Your task to perform on an android device: create a new album in the google photos Image 0: 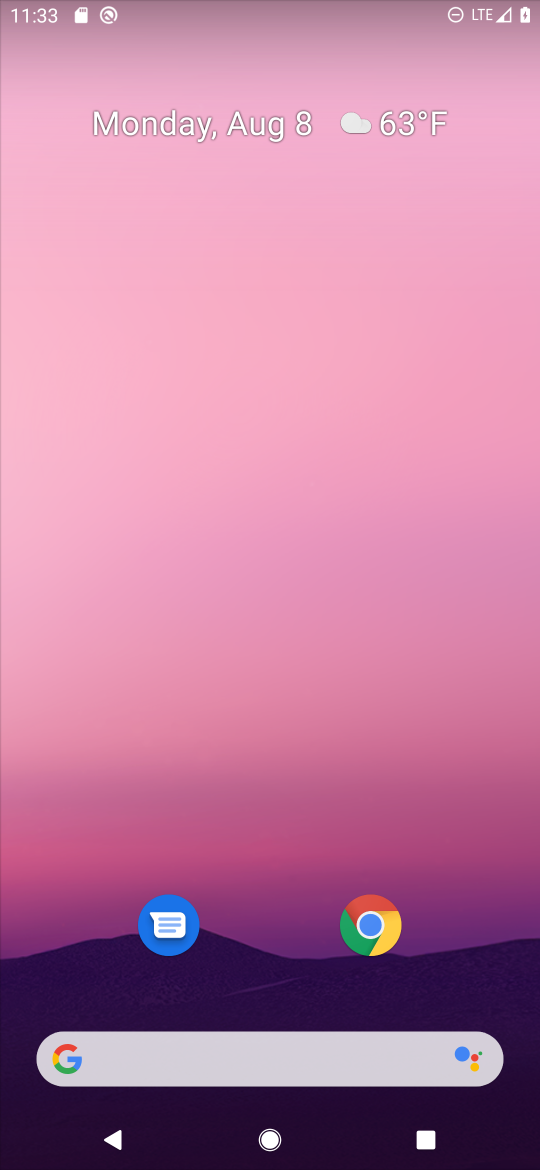
Step 0: drag from (291, 995) to (275, 13)
Your task to perform on an android device: create a new album in the google photos Image 1: 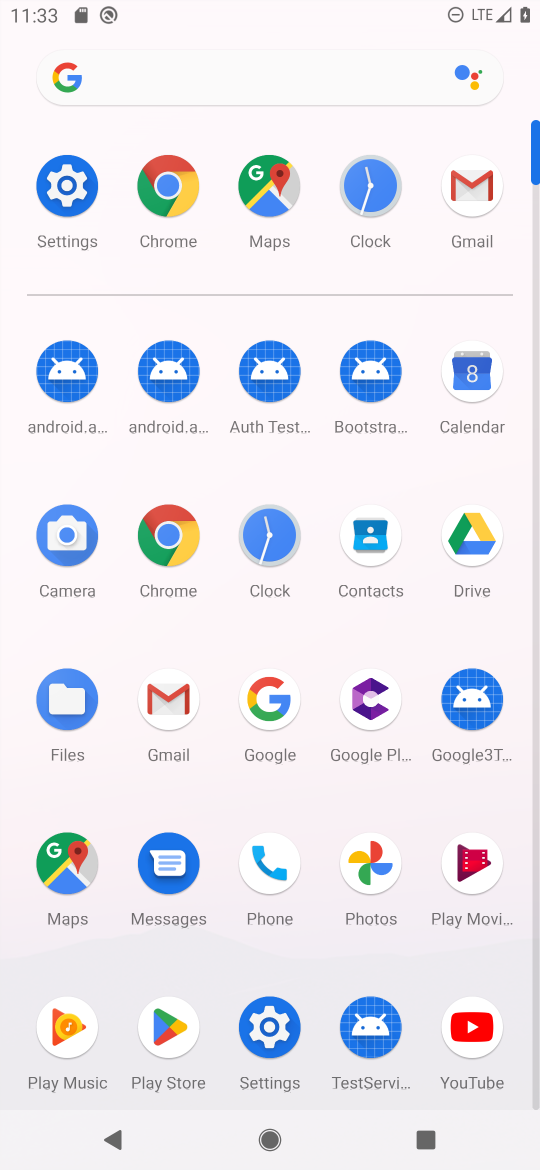
Step 1: click (367, 864)
Your task to perform on an android device: create a new album in the google photos Image 2: 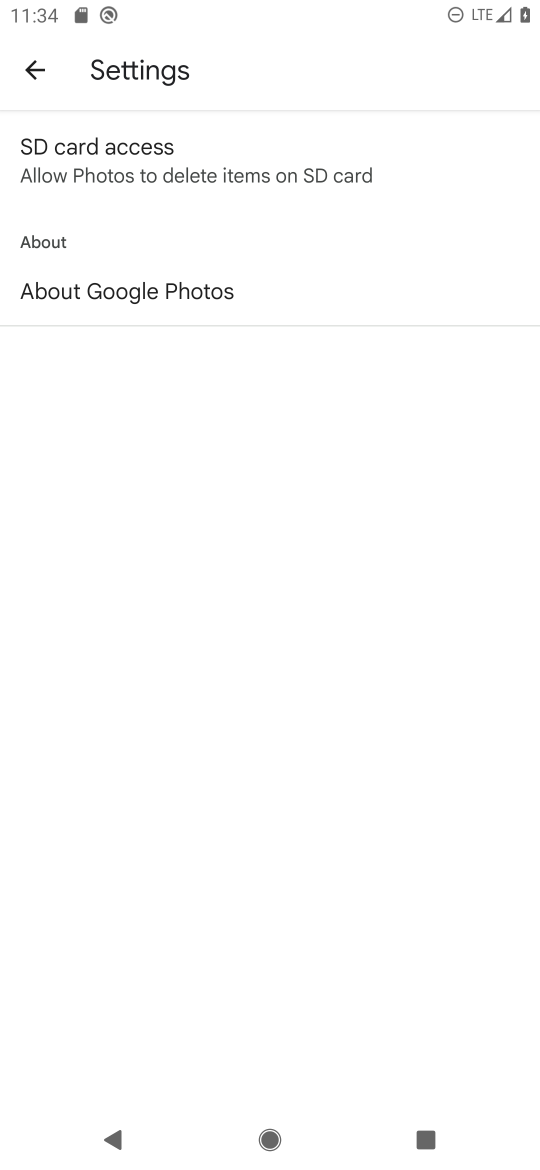
Step 2: click (34, 61)
Your task to perform on an android device: create a new album in the google photos Image 3: 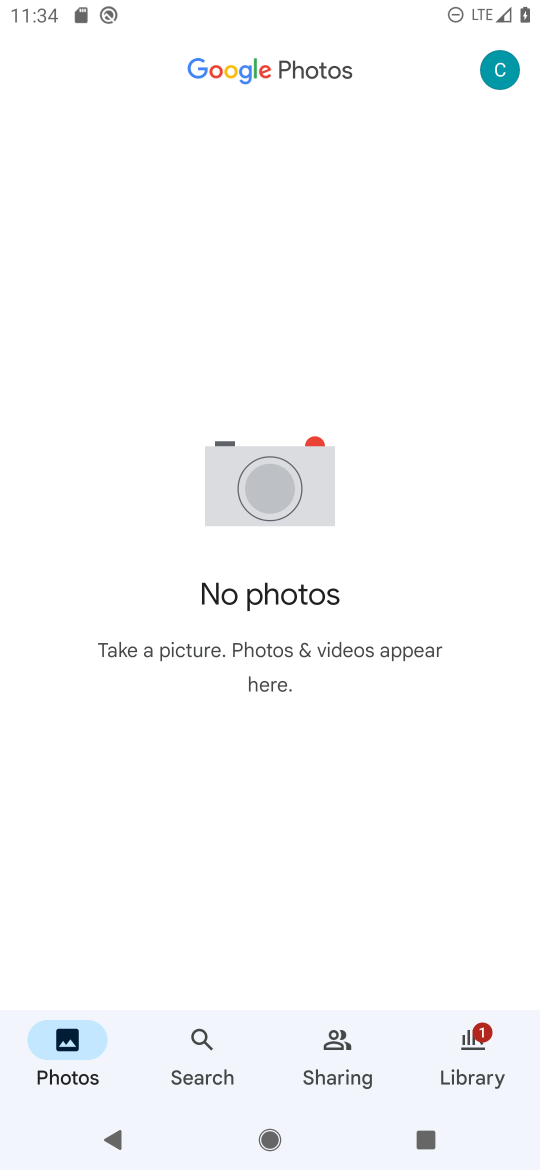
Step 3: click (490, 1057)
Your task to perform on an android device: create a new album in the google photos Image 4: 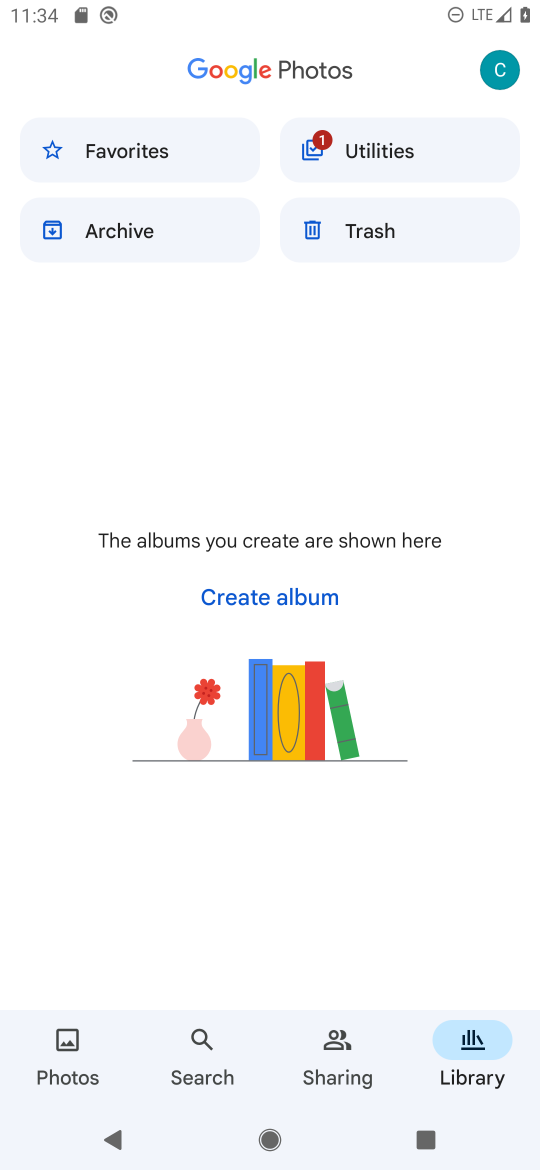
Step 4: click (319, 593)
Your task to perform on an android device: create a new album in the google photos Image 5: 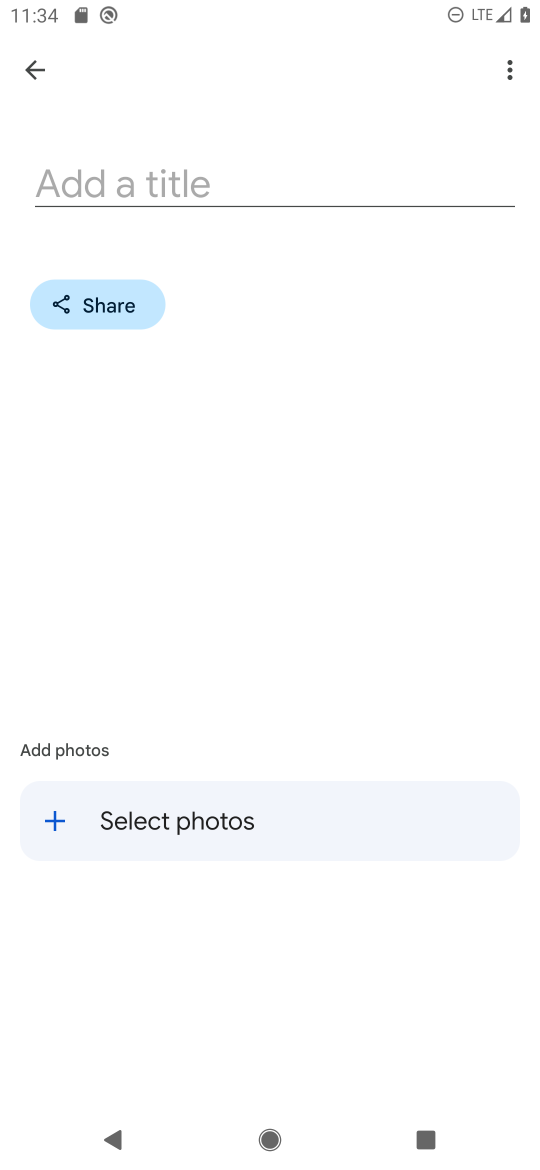
Step 5: click (314, 184)
Your task to perform on an android device: create a new album in the google photos Image 6: 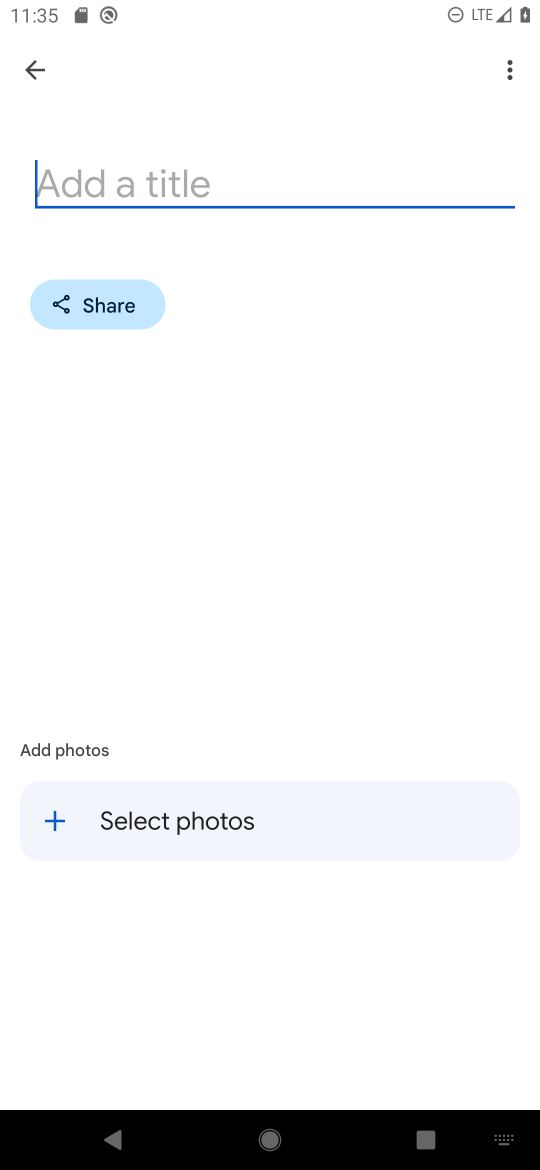
Step 6: type "hopp"
Your task to perform on an android device: create a new album in the google photos Image 7: 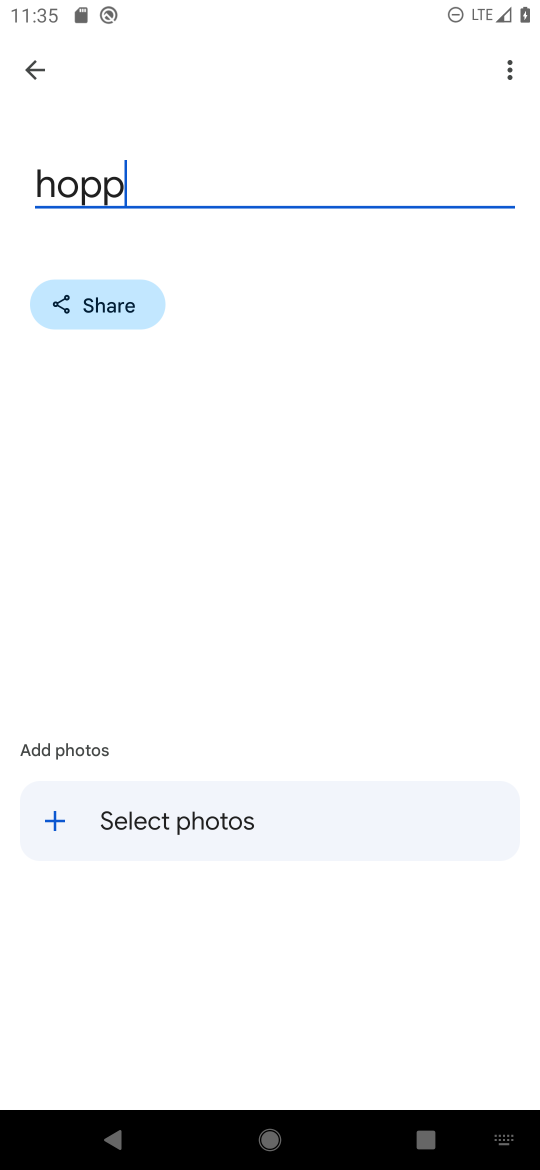
Step 7: type ""
Your task to perform on an android device: create a new album in the google photos Image 8: 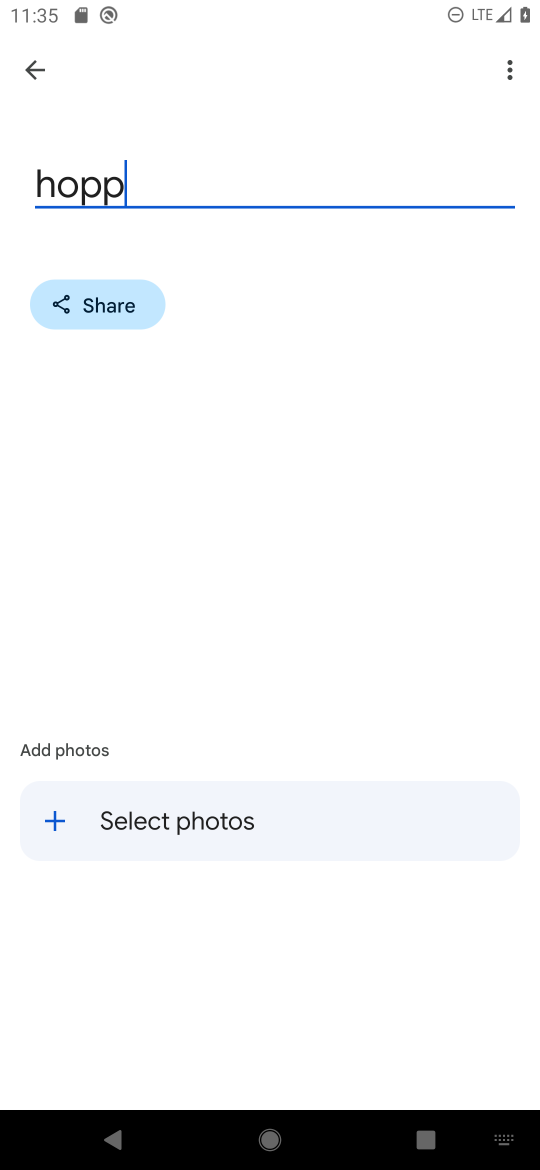
Step 8: task complete